Your task to perform on an android device: Open ESPN.com Image 0: 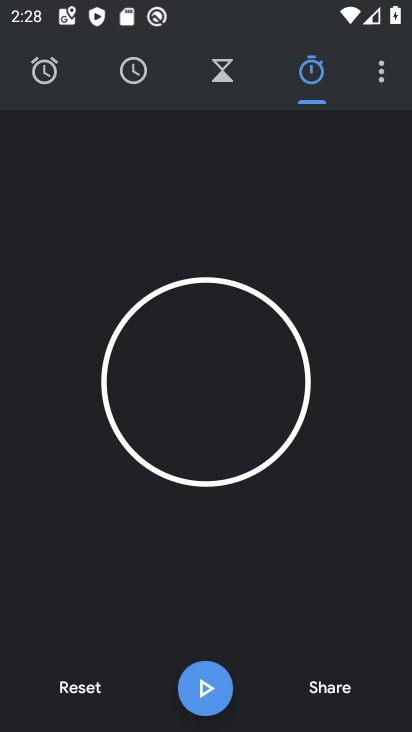
Step 0: press home button
Your task to perform on an android device: Open ESPN.com Image 1: 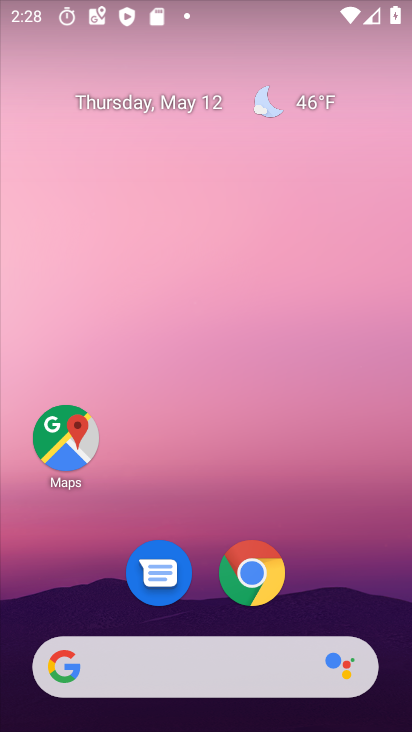
Step 1: click (201, 666)
Your task to perform on an android device: Open ESPN.com Image 2: 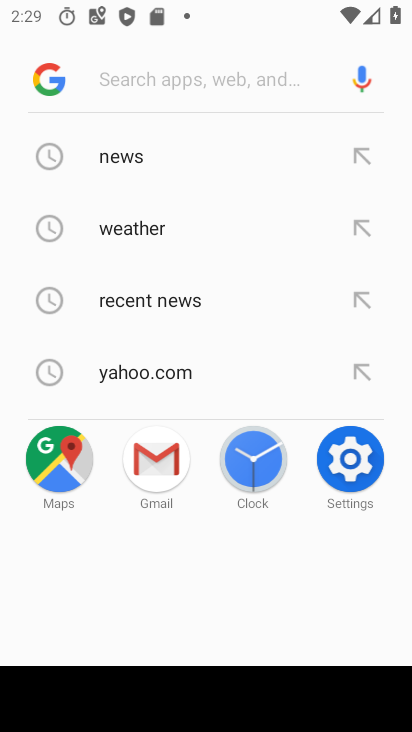
Step 2: type "espn.com"
Your task to perform on an android device: Open ESPN.com Image 3: 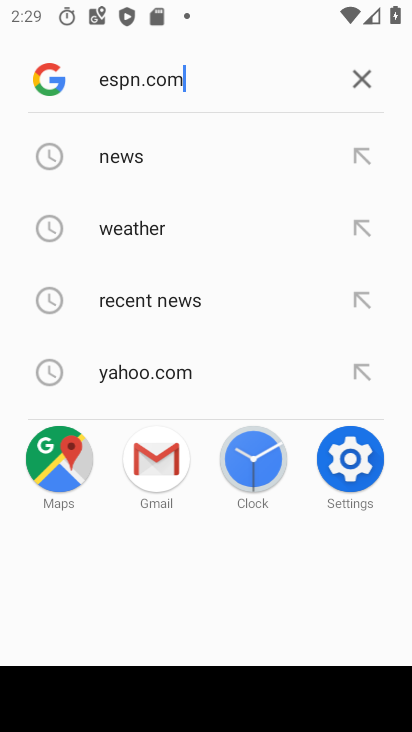
Step 3: type ""
Your task to perform on an android device: Open ESPN.com Image 4: 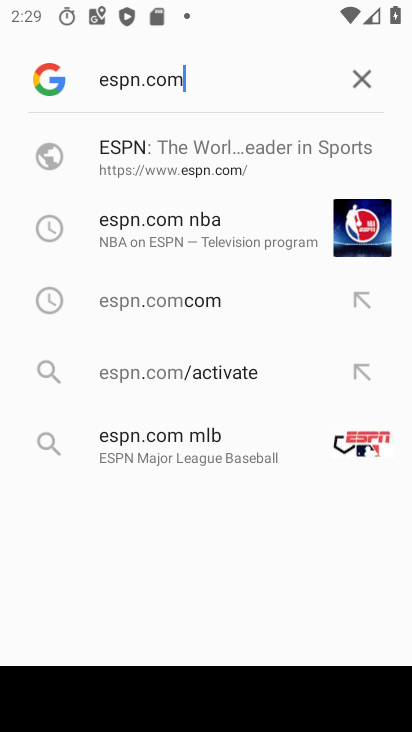
Step 4: click (212, 157)
Your task to perform on an android device: Open ESPN.com Image 5: 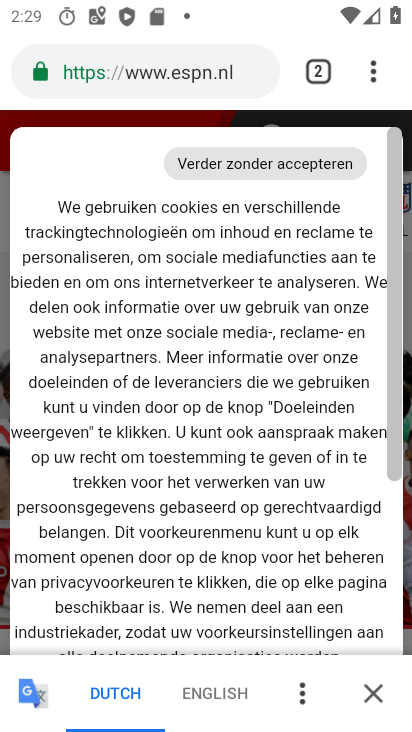
Step 5: task complete